Your task to perform on an android device: Open settings on Google Maps Image 0: 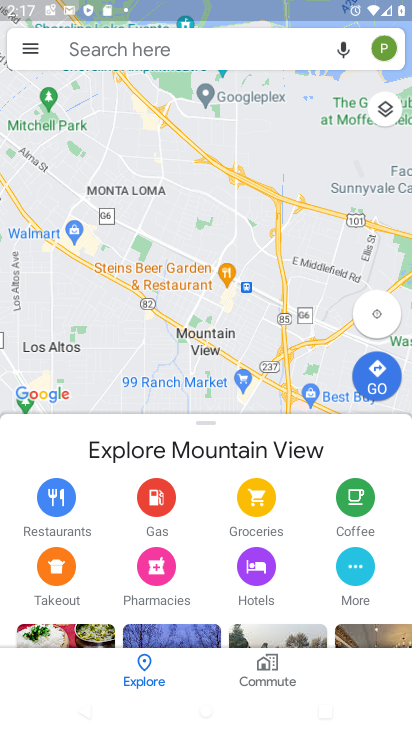
Step 0: press home button
Your task to perform on an android device: Open settings on Google Maps Image 1: 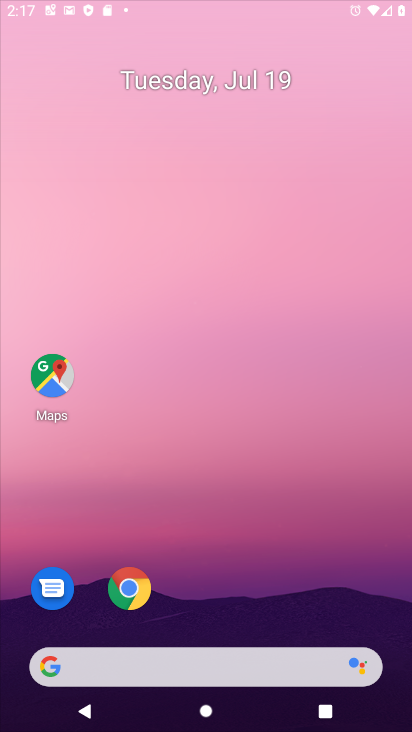
Step 1: drag from (390, 666) to (235, 77)
Your task to perform on an android device: Open settings on Google Maps Image 2: 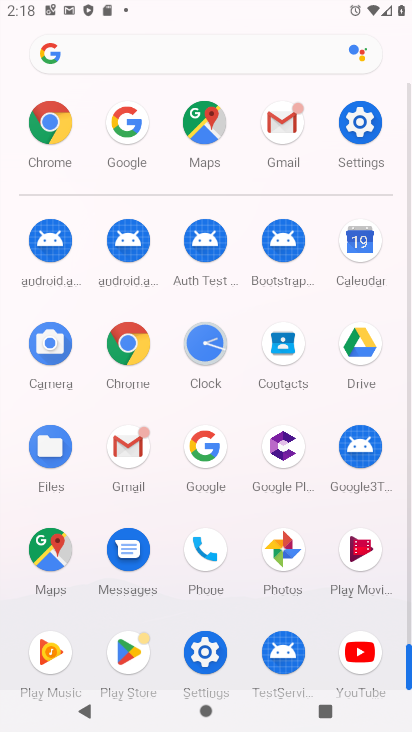
Step 2: click (55, 544)
Your task to perform on an android device: Open settings on Google Maps Image 3: 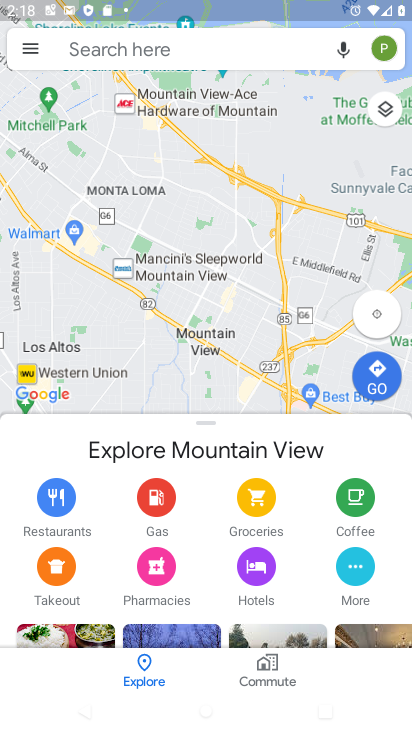
Step 3: click (23, 56)
Your task to perform on an android device: Open settings on Google Maps Image 4: 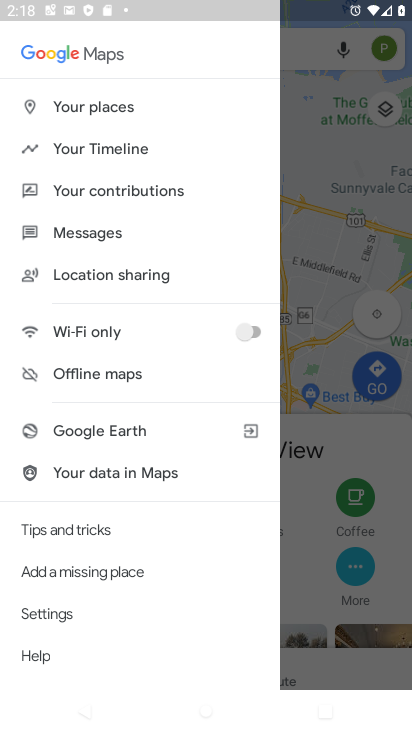
Step 4: drag from (77, 529) to (134, 150)
Your task to perform on an android device: Open settings on Google Maps Image 5: 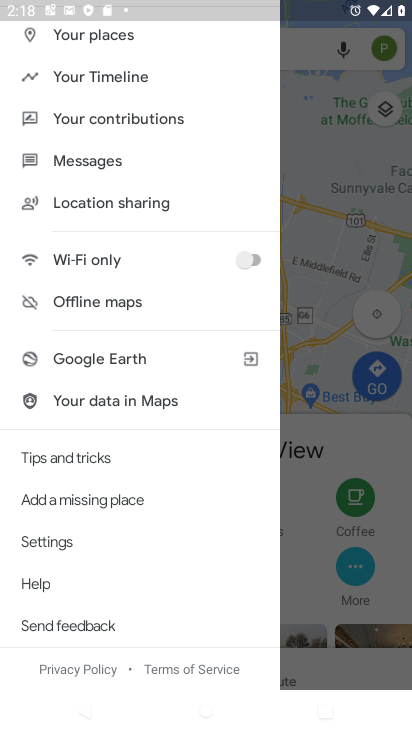
Step 5: click (62, 554)
Your task to perform on an android device: Open settings on Google Maps Image 6: 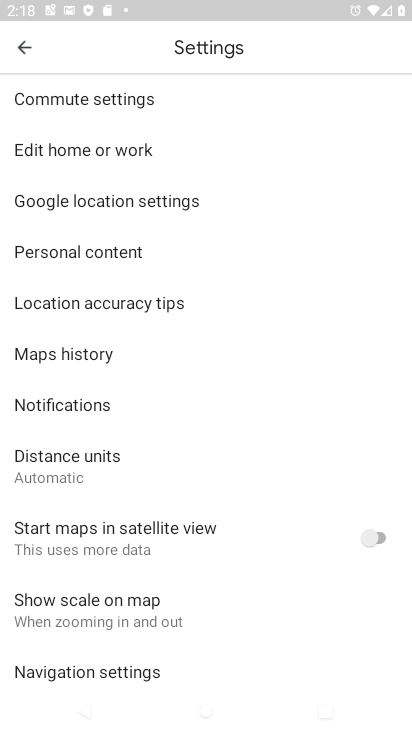
Step 6: task complete